Your task to perform on an android device: find snoozed emails in the gmail app Image 0: 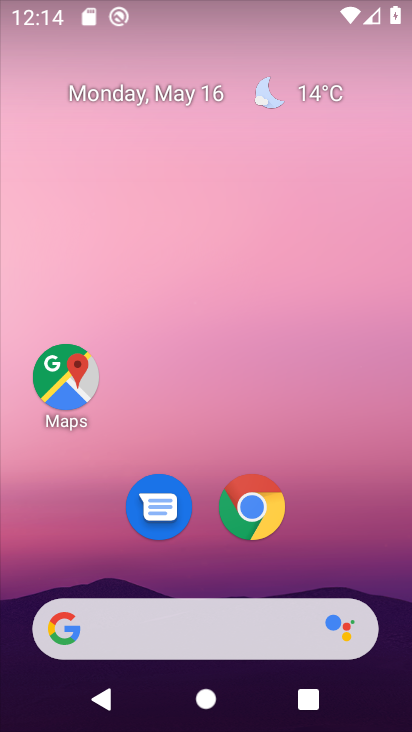
Step 0: drag from (81, 496) to (214, 199)
Your task to perform on an android device: find snoozed emails in the gmail app Image 1: 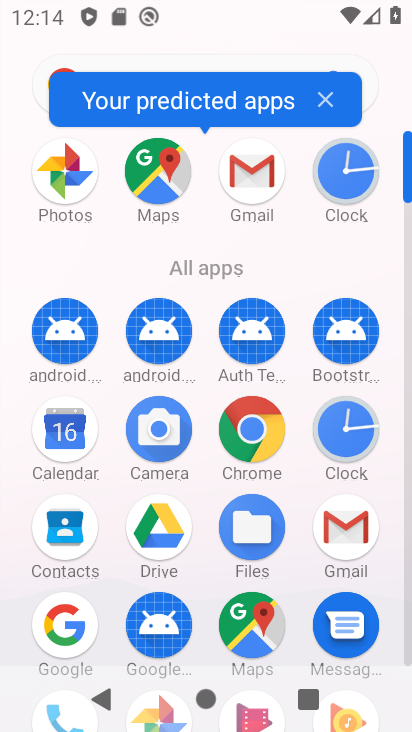
Step 1: click (253, 168)
Your task to perform on an android device: find snoozed emails in the gmail app Image 2: 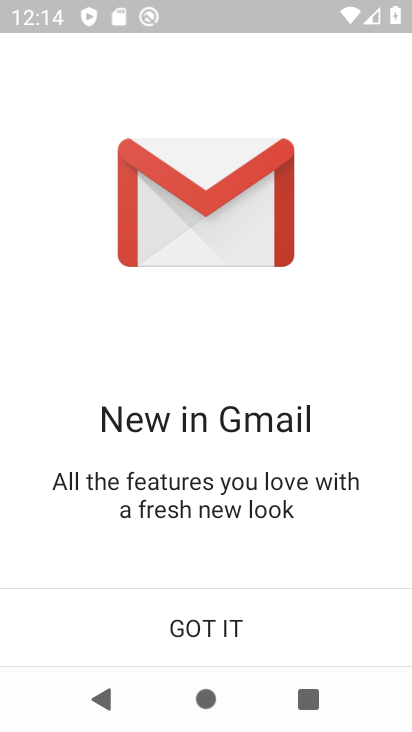
Step 2: click (155, 618)
Your task to perform on an android device: find snoozed emails in the gmail app Image 3: 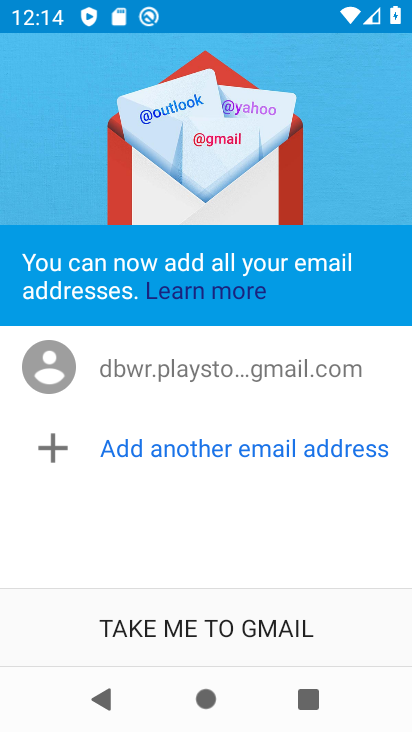
Step 3: click (177, 623)
Your task to perform on an android device: find snoozed emails in the gmail app Image 4: 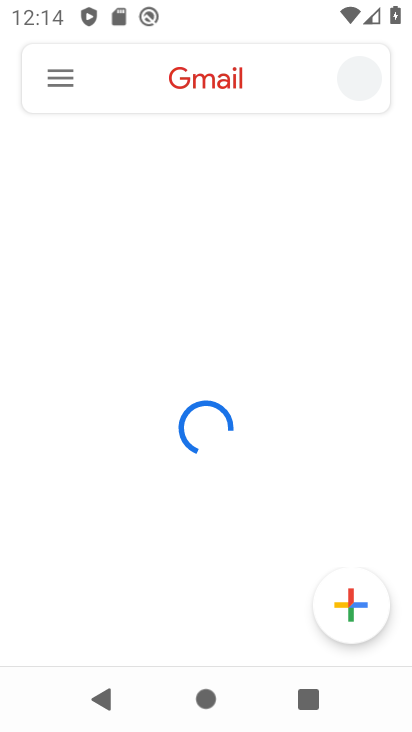
Step 4: click (53, 81)
Your task to perform on an android device: find snoozed emails in the gmail app Image 5: 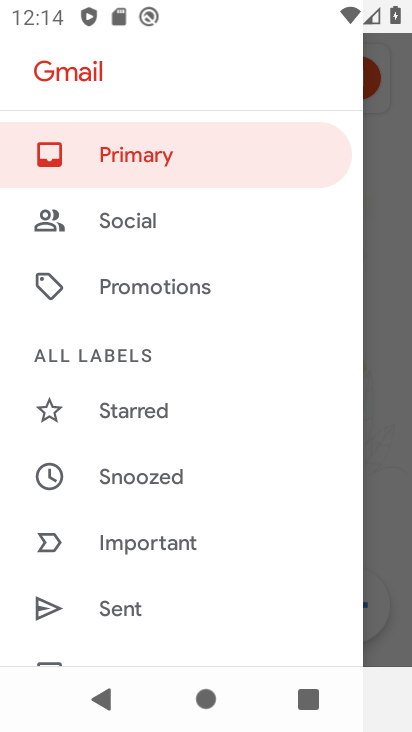
Step 5: drag from (131, 555) to (286, 205)
Your task to perform on an android device: find snoozed emails in the gmail app Image 6: 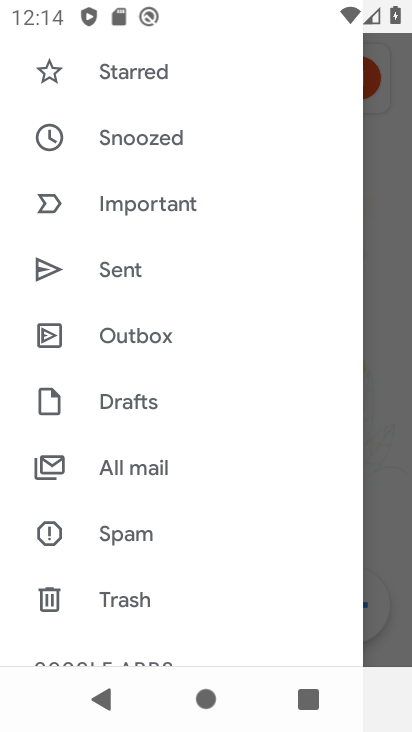
Step 6: click (98, 479)
Your task to perform on an android device: find snoozed emails in the gmail app Image 7: 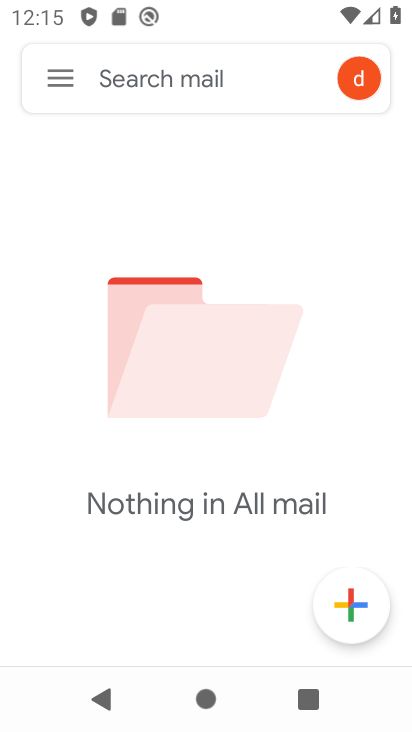
Step 7: task complete